Your task to perform on an android device: open wifi settings Image 0: 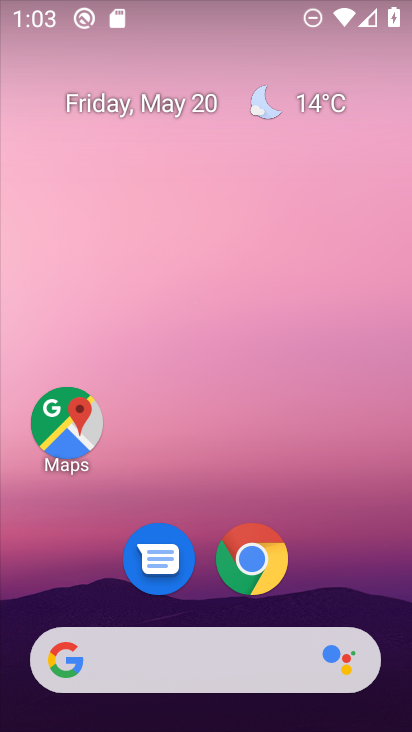
Step 0: drag from (365, 570) to (281, 128)
Your task to perform on an android device: open wifi settings Image 1: 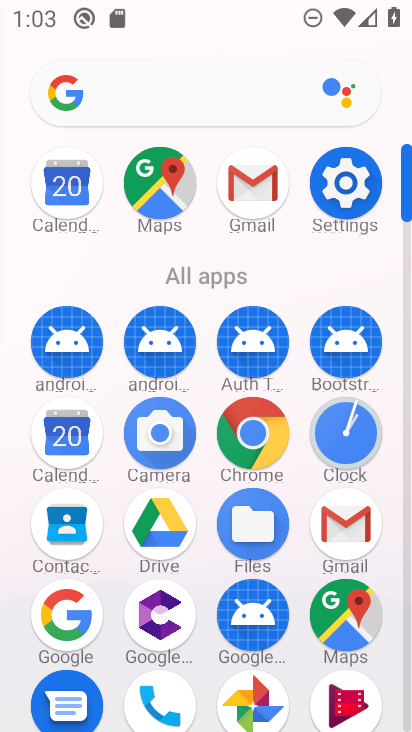
Step 1: click (341, 179)
Your task to perform on an android device: open wifi settings Image 2: 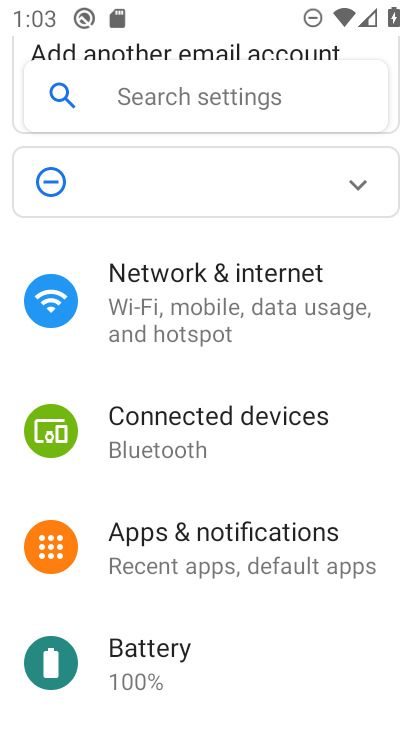
Step 2: click (205, 307)
Your task to perform on an android device: open wifi settings Image 3: 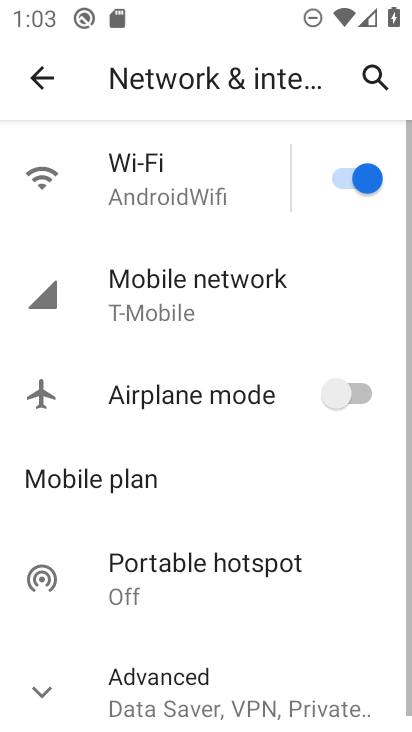
Step 3: click (173, 206)
Your task to perform on an android device: open wifi settings Image 4: 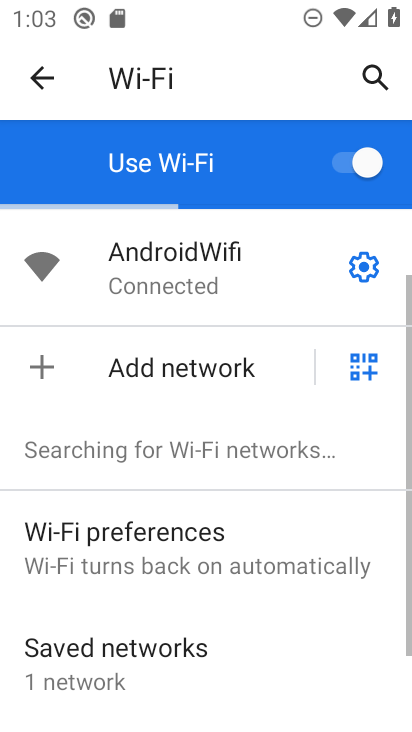
Step 4: task complete